Your task to perform on an android device: choose inbox layout in the gmail app Image 0: 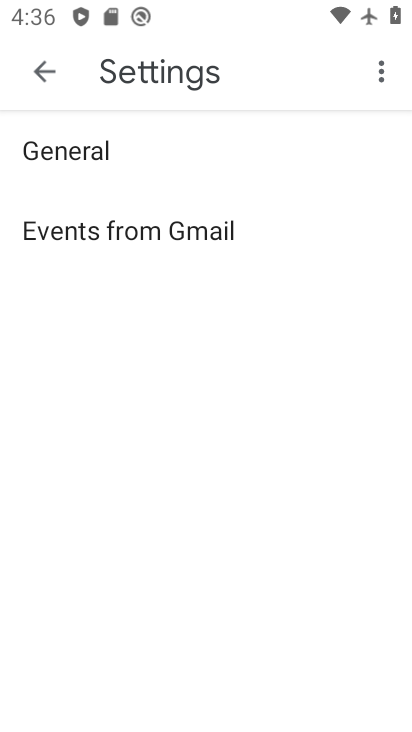
Step 0: press home button
Your task to perform on an android device: choose inbox layout in the gmail app Image 1: 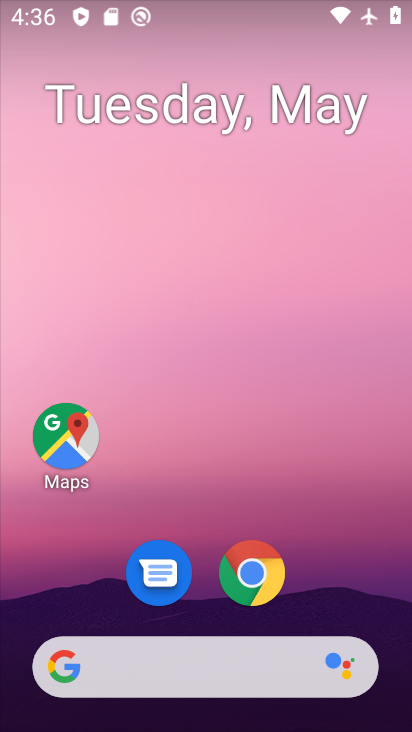
Step 1: drag from (310, 497) to (249, 97)
Your task to perform on an android device: choose inbox layout in the gmail app Image 2: 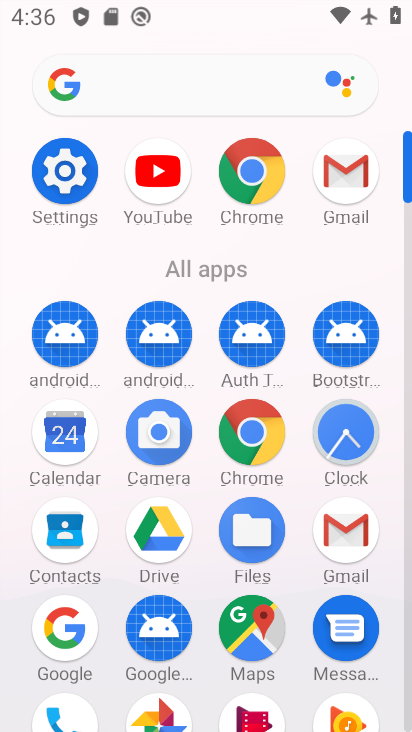
Step 2: click (352, 175)
Your task to perform on an android device: choose inbox layout in the gmail app Image 3: 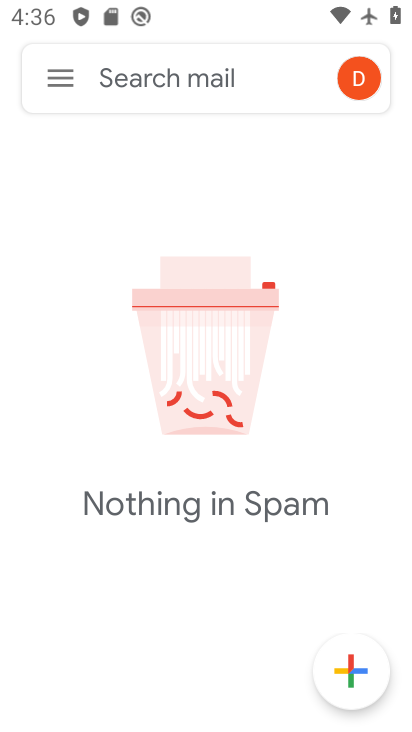
Step 3: click (38, 76)
Your task to perform on an android device: choose inbox layout in the gmail app Image 4: 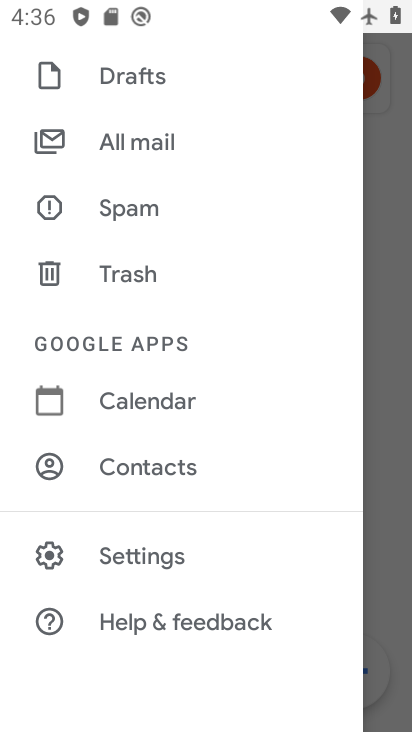
Step 4: click (173, 552)
Your task to perform on an android device: choose inbox layout in the gmail app Image 5: 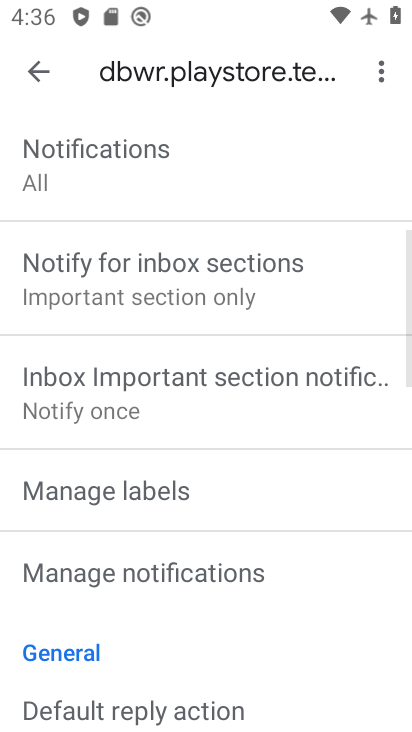
Step 5: drag from (153, 210) to (159, 587)
Your task to perform on an android device: choose inbox layout in the gmail app Image 6: 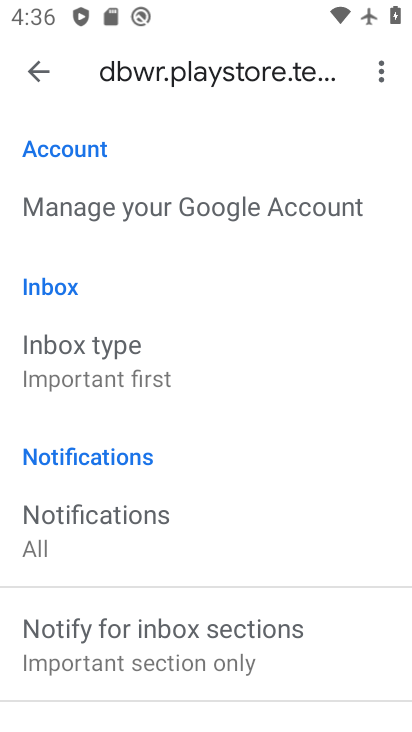
Step 6: drag from (138, 523) to (173, 377)
Your task to perform on an android device: choose inbox layout in the gmail app Image 7: 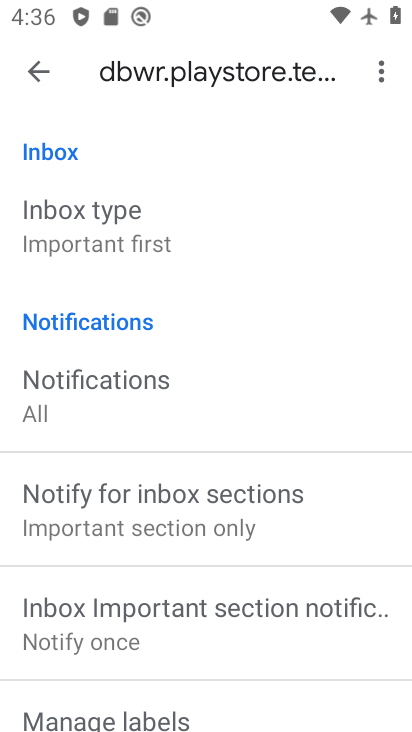
Step 7: click (112, 238)
Your task to perform on an android device: choose inbox layout in the gmail app Image 8: 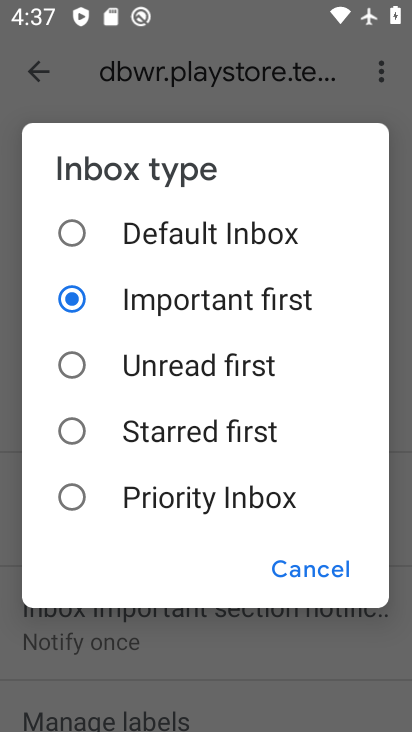
Step 8: task complete